Your task to perform on an android device: turn vacation reply on in the gmail app Image 0: 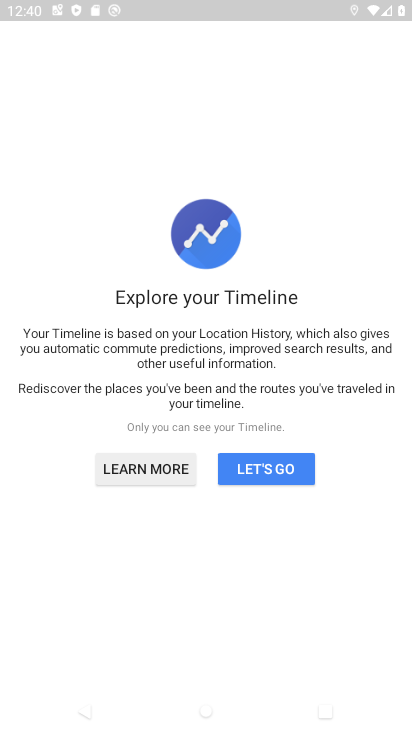
Step 0: press home button
Your task to perform on an android device: turn vacation reply on in the gmail app Image 1: 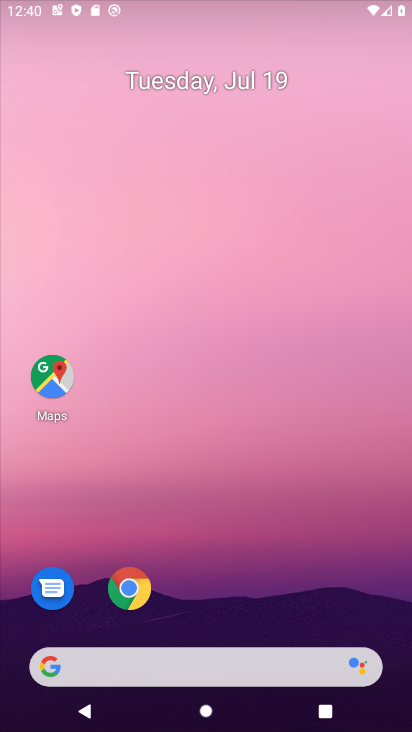
Step 1: drag from (300, 626) to (270, 75)
Your task to perform on an android device: turn vacation reply on in the gmail app Image 2: 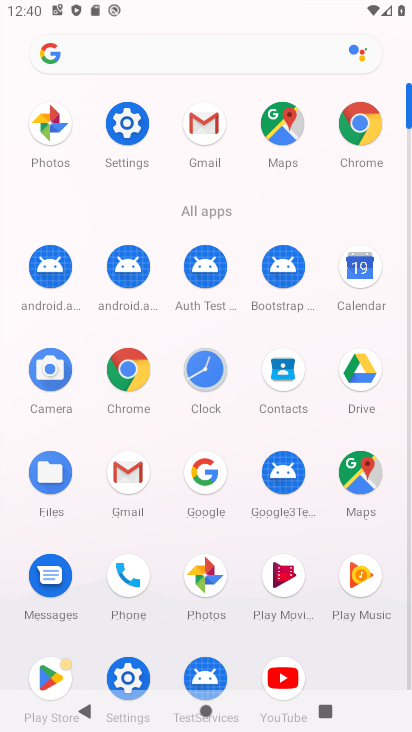
Step 2: click (218, 129)
Your task to perform on an android device: turn vacation reply on in the gmail app Image 3: 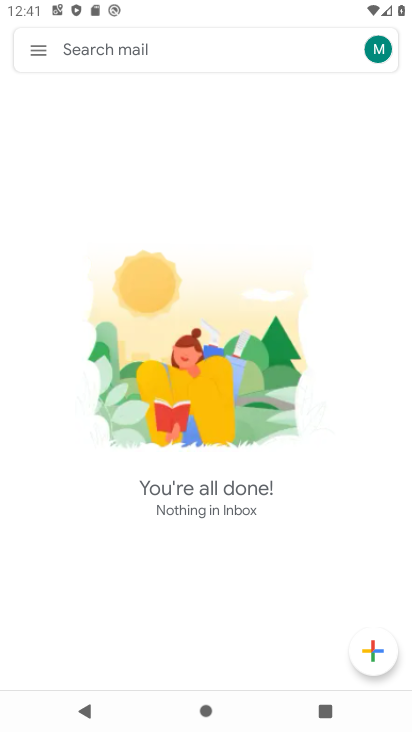
Step 3: click (38, 62)
Your task to perform on an android device: turn vacation reply on in the gmail app Image 4: 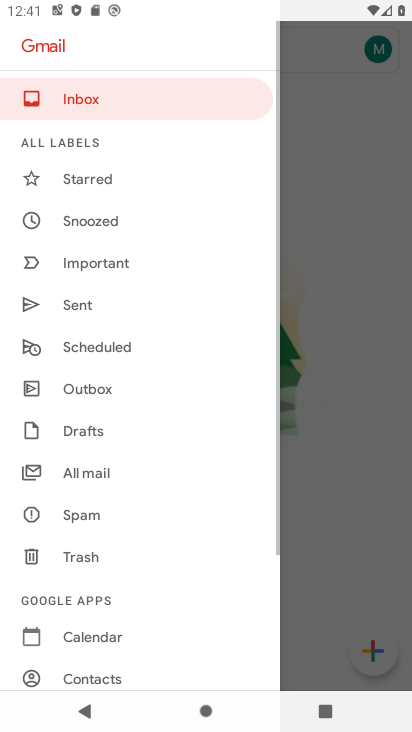
Step 4: drag from (88, 677) to (156, 171)
Your task to perform on an android device: turn vacation reply on in the gmail app Image 5: 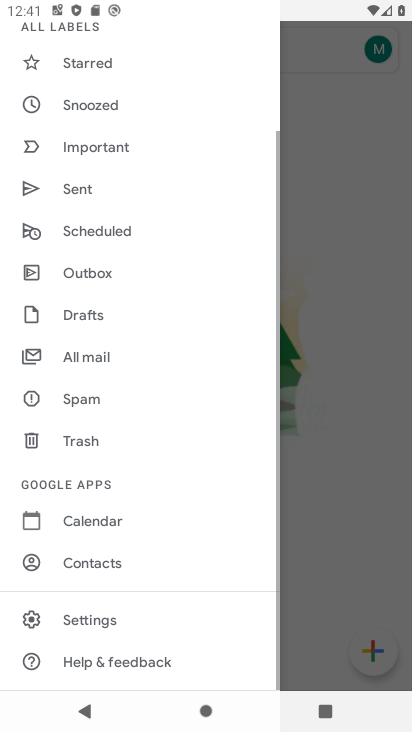
Step 5: click (97, 622)
Your task to perform on an android device: turn vacation reply on in the gmail app Image 6: 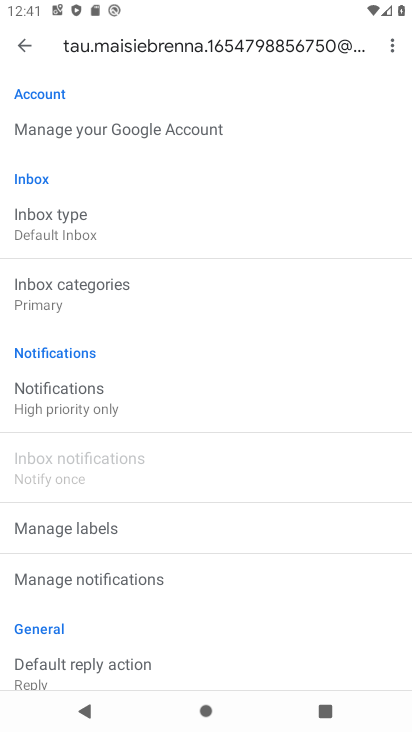
Step 6: drag from (180, 595) to (260, 169)
Your task to perform on an android device: turn vacation reply on in the gmail app Image 7: 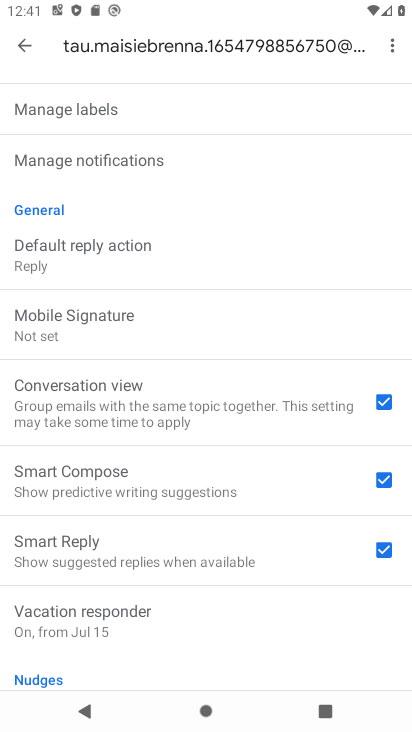
Step 7: click (93, 625)
Your task to perform on an android device: turn vacation reply on in the gmail app Image 8: 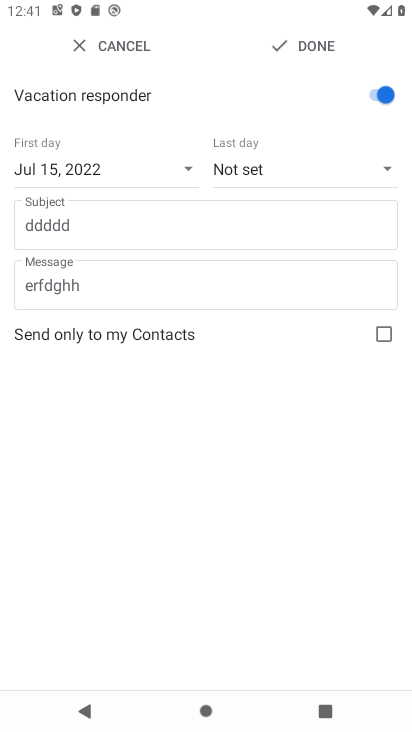
Step 8: task complete